Your task to perform on an android device: empty trash in the gmail app Image 0: 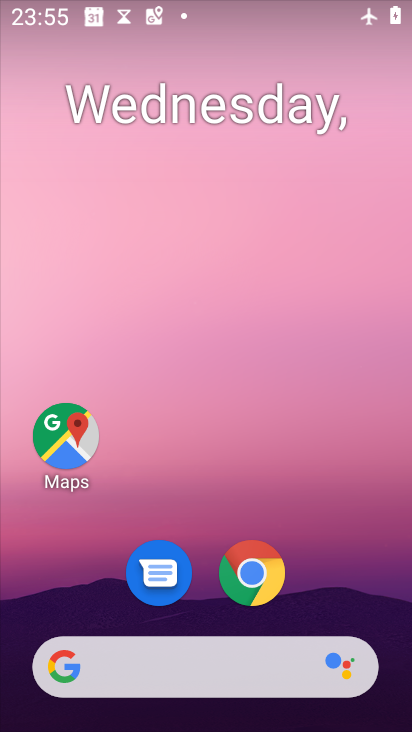
Step 0: drag from (331, 560) to (261, 271)
Your task to perform on an android device: empty trash in the gmail app Image 1: 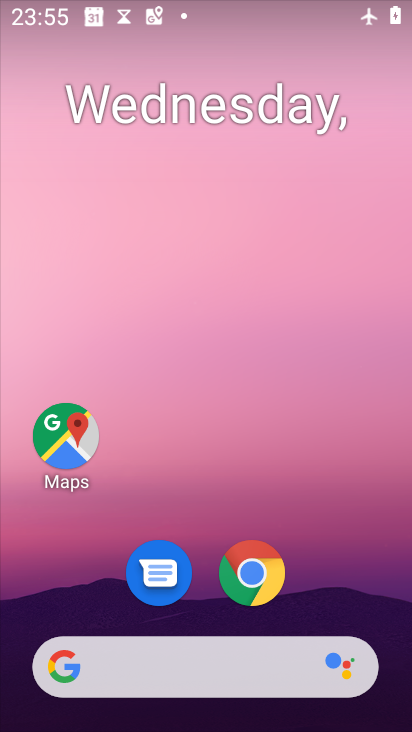
Step 1: drag from (323, 547) to (302, 202)
Your task to perform on an android device: empty trash in the gmail app Image 2: 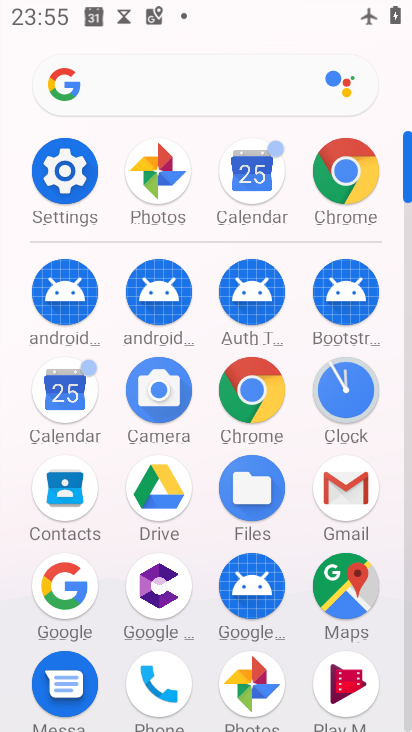
Step 2: click (345, 474)
Your task to perform on an android device: empty trash in the gmail app Image 3: 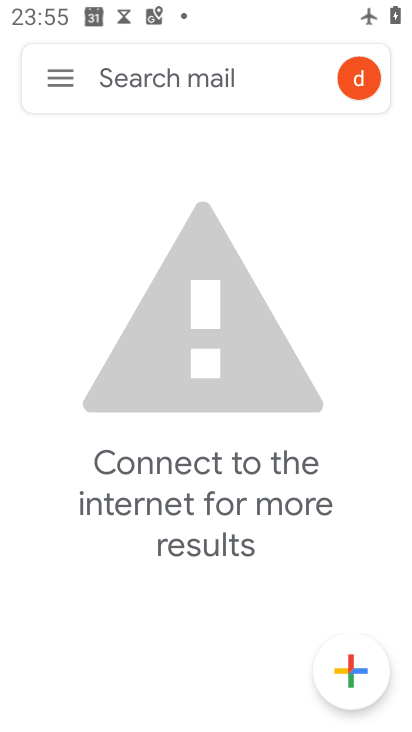
Step 3: click (60, 77)
Your task to perform on an android device: empty trash in the gmail app Image 4: 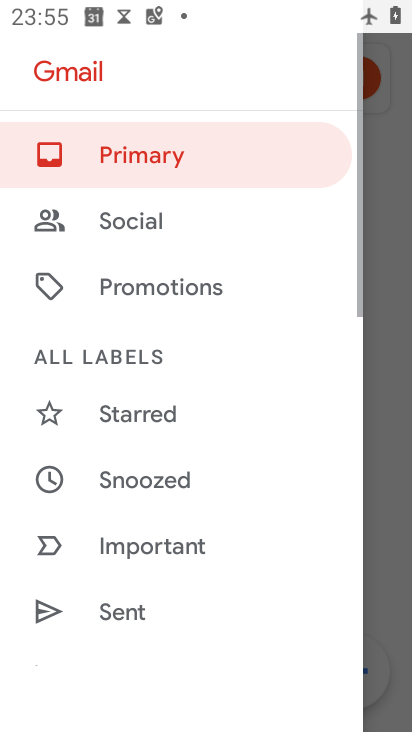
Step 4: drag from (181, 602) to (168, 253)
Your task to perform on an android device: empty trash in the gmail app Image 5: 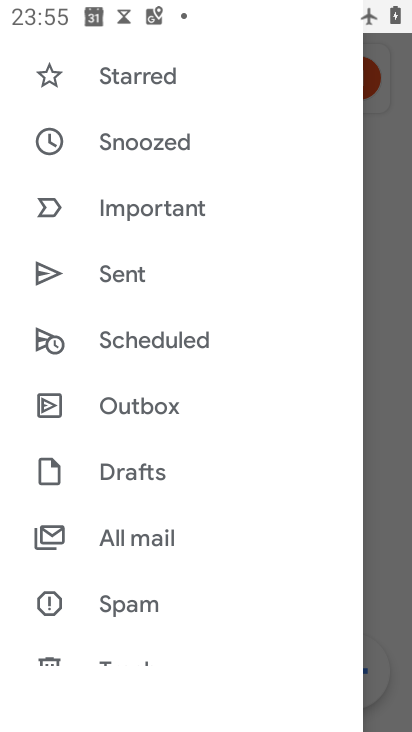
Step 5: drag from (162, 587) to (182, 292)
Your task to perform on an android device: empty trash in the gmail app Image 6: 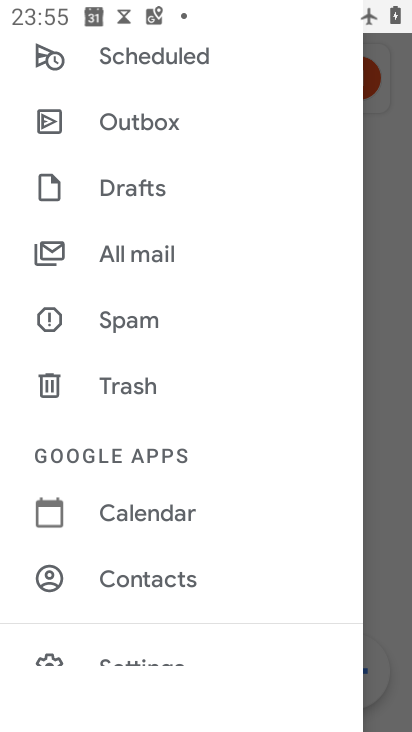
Step 6: click (147, 383)
Your task to perform on an android device: empty trash in the gmail app Image 7: 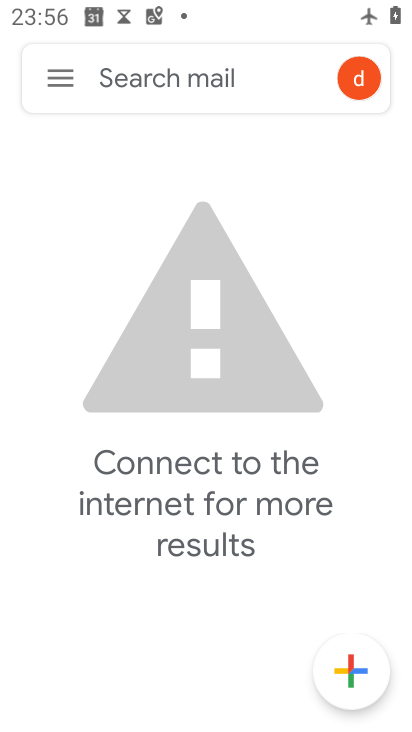
Step 7: task complete